Your task to perform on an android device: Search for pizza restaurants on Maps Image 0: 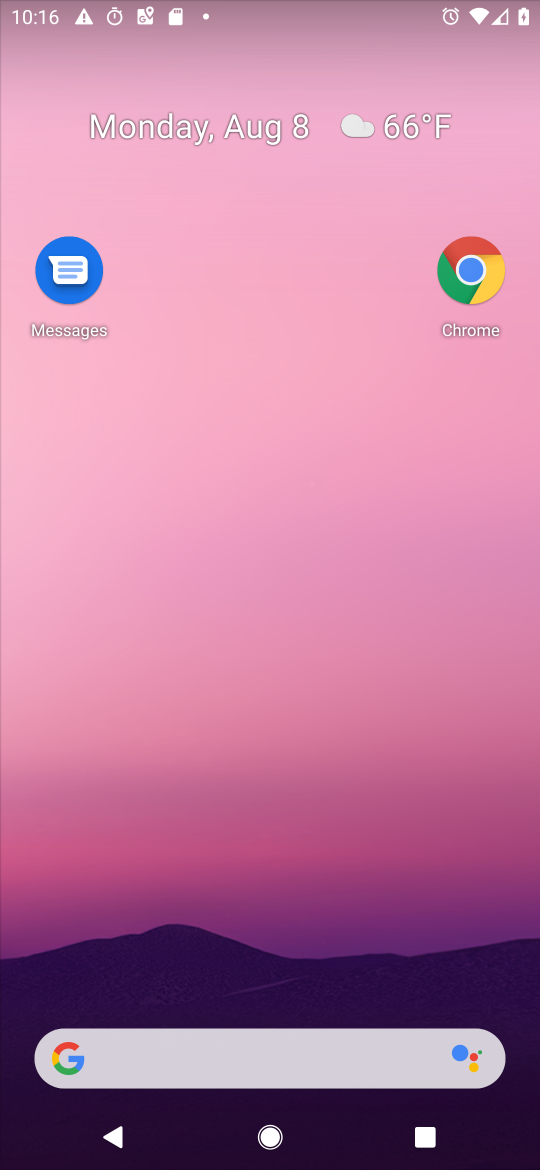
Step 0: drag from (212, 738) to (222, 58)
Your task to perform on an android device: Search for pizza restaurants on Maps Image 1: 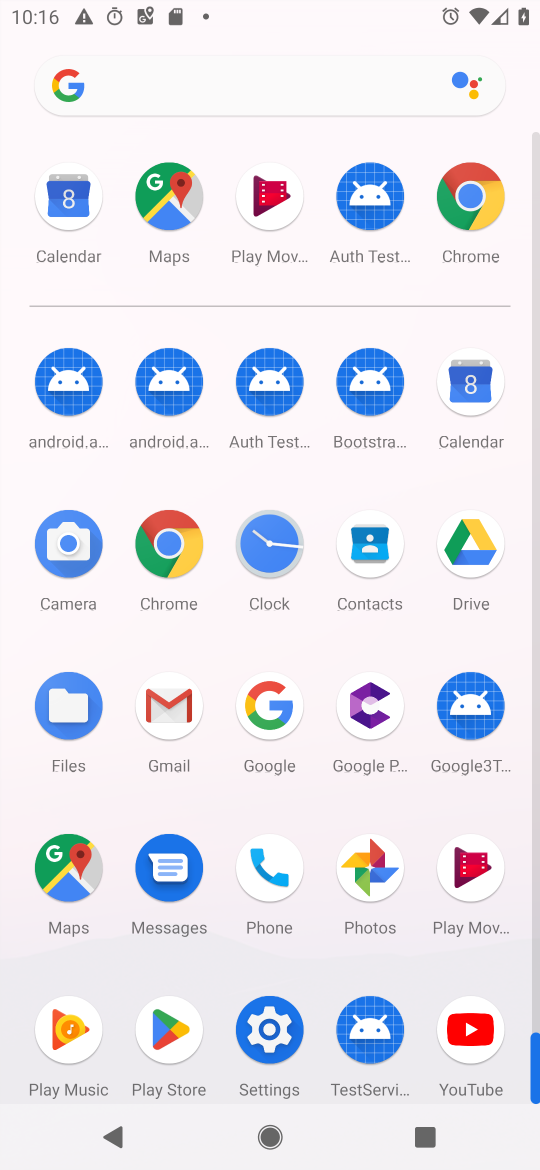
Step 1: click (54, 857)
Your task to perform on an android device: Search for pizza restaurants on Maps Image 2: 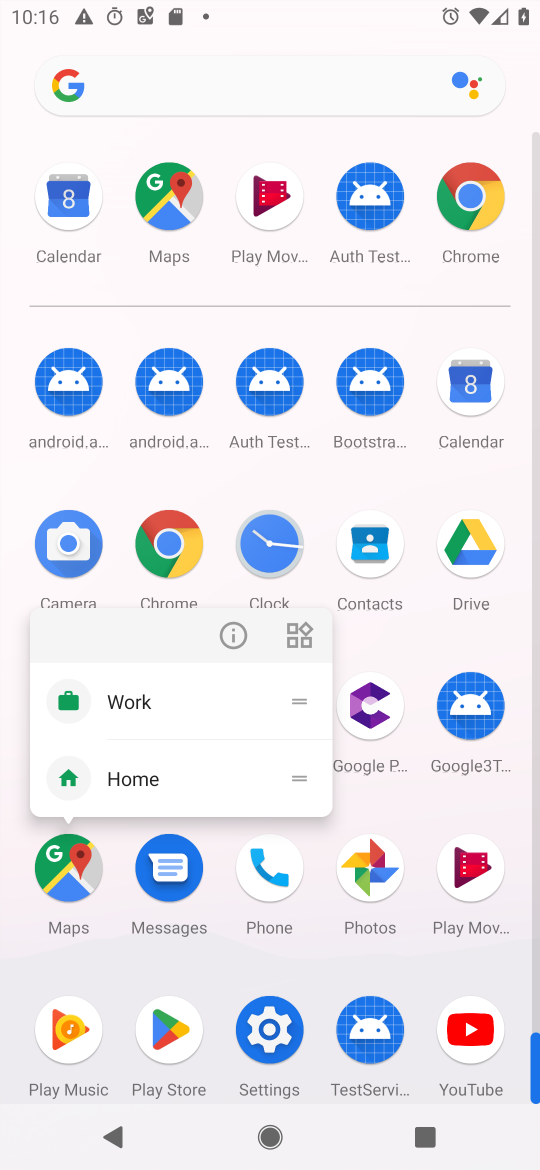
Step 2: click (224, 632)
Your task to perform on an android device: Search for pizza restaurants on Maps Image 3: 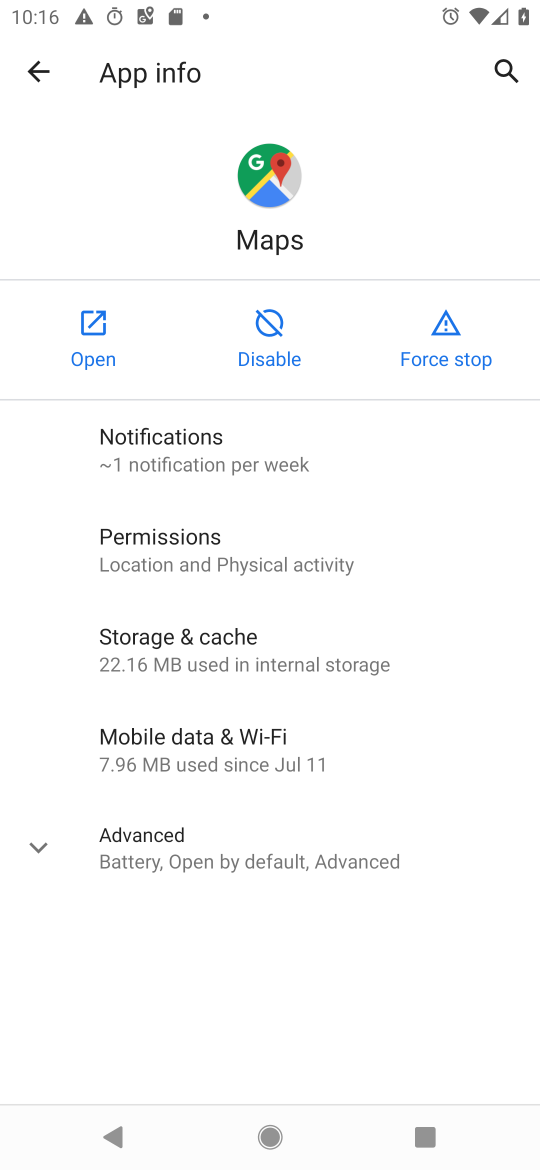
Step 3: click (63, 326)
Your task to perform on an android device: Search for pizza restaurants on Maps Image 4: 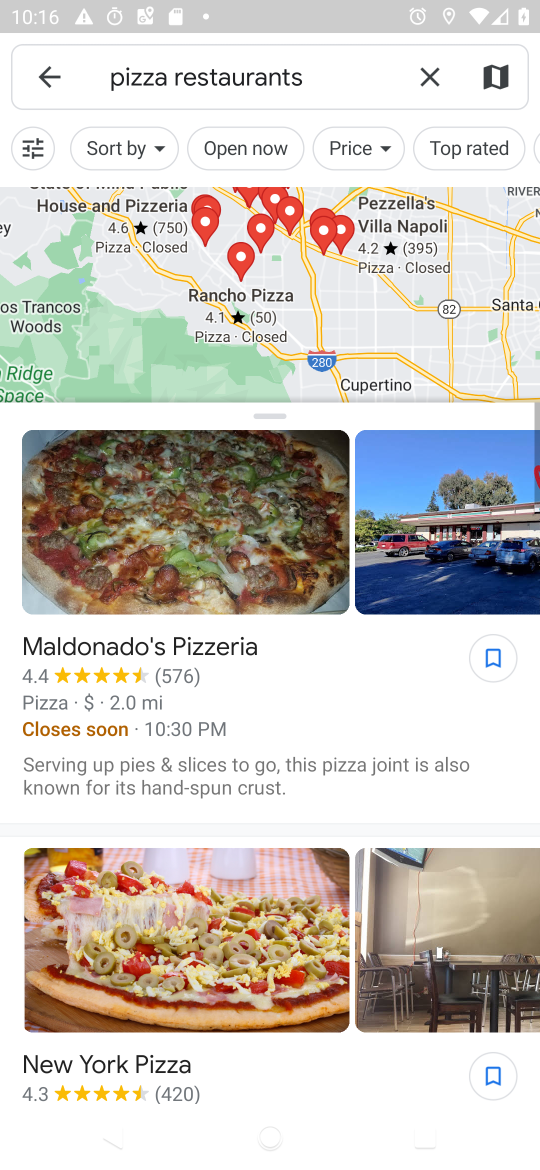
Step 4: task complete